Your task to perform on an android device: Go to Reddit.com Image 0: 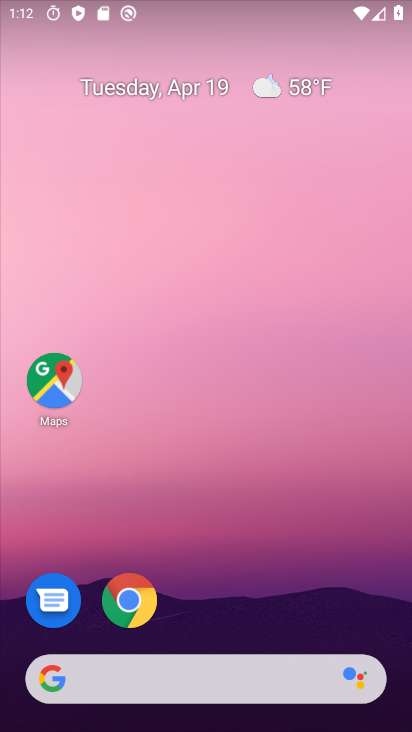
Step 0: drag from (205, 695) to (350, 196)
Your task to perform on an android device: Go to Reddit.com Image 1: 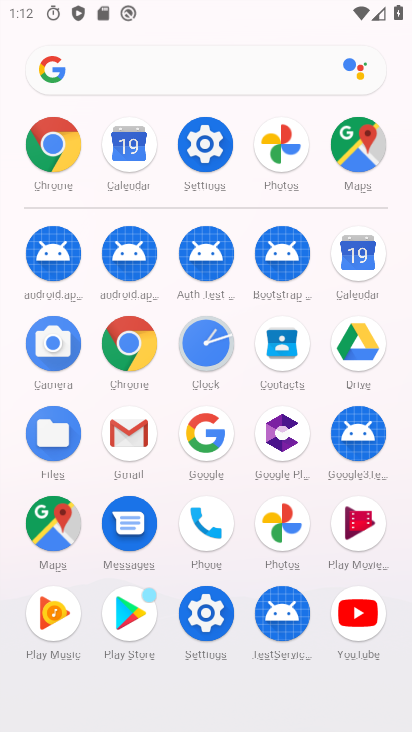
Step 1: click (53, 160)
Your task to perform on an android device: Go to Reddit.com Image 2: 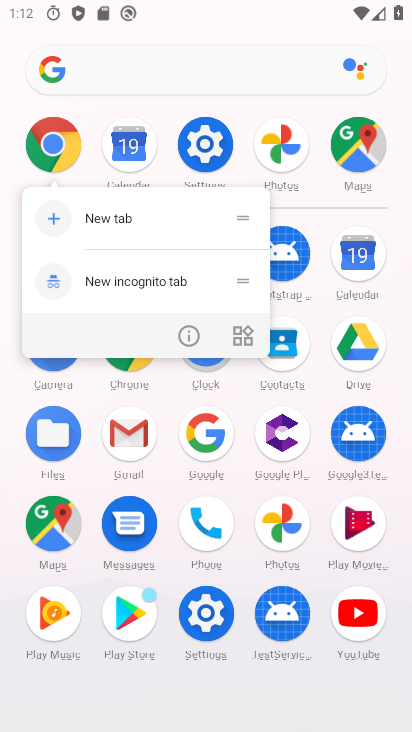
Step 2: click (53, 160)
Your task to perform on an android device: Go to Reddit.com Image 3: 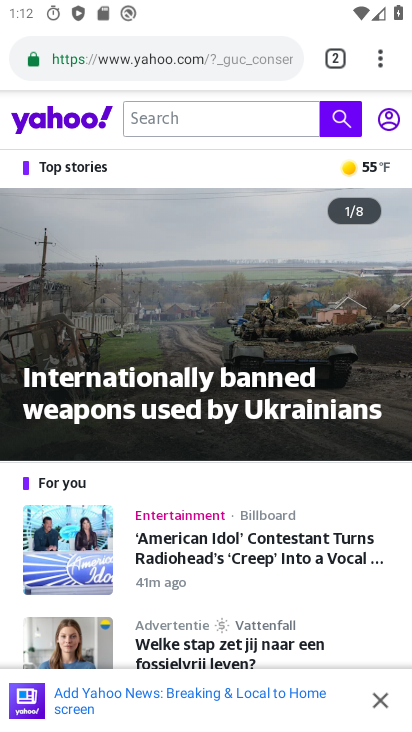
Step 3: click (203, 66)
Your task to perform on an android device: Go to Reddit.com Image 4: 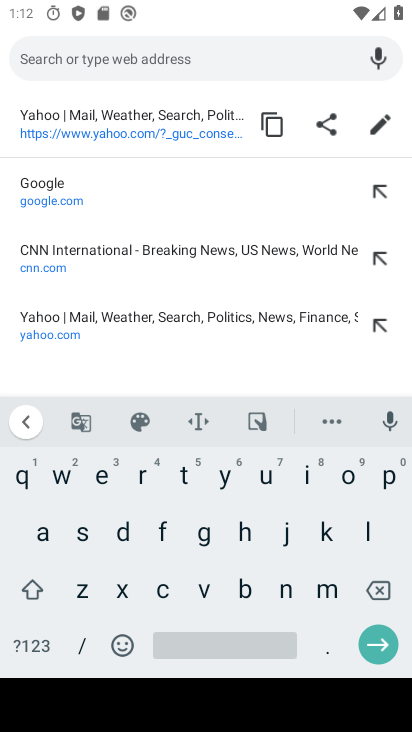
Step 4: click (138, 475)
Your task to perform on an android device: Go to Reddit.com Image 5: 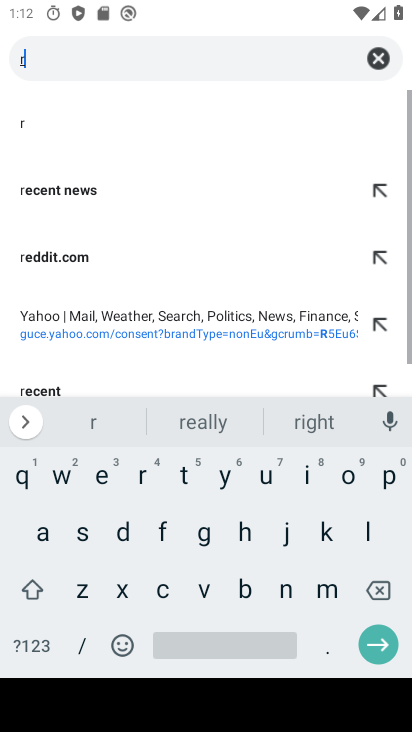
Step 5: click (99, 479)
Your task to perform on an android device: Go to Reddit.com Image 6: 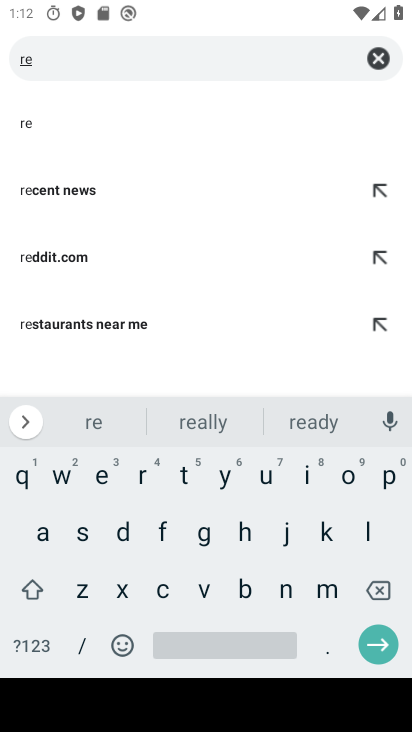
Step 6: click (95, 260)
Your task to perform on an android device: Go to Reddit.com Image 7: 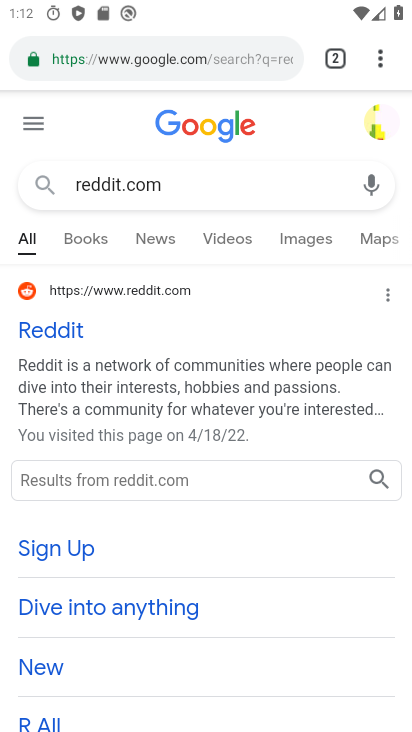
Step 7: click (41, 332)
Your task to perform on an android device: Go to Reddit.com Image 8: 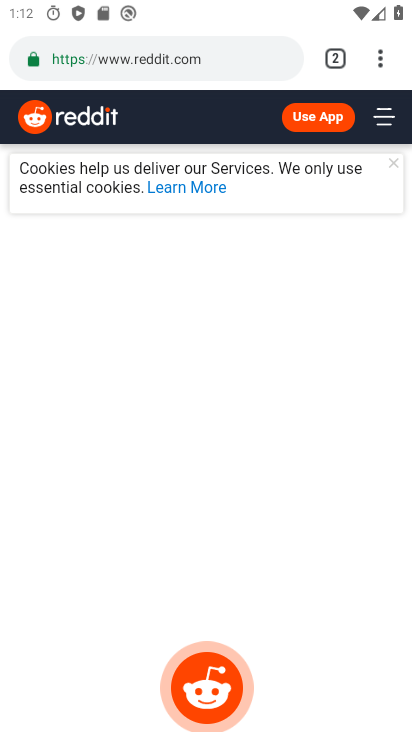
Step 8: task complete